Your task to perform on an android device: toggle javascript in the chrome app Image 0: 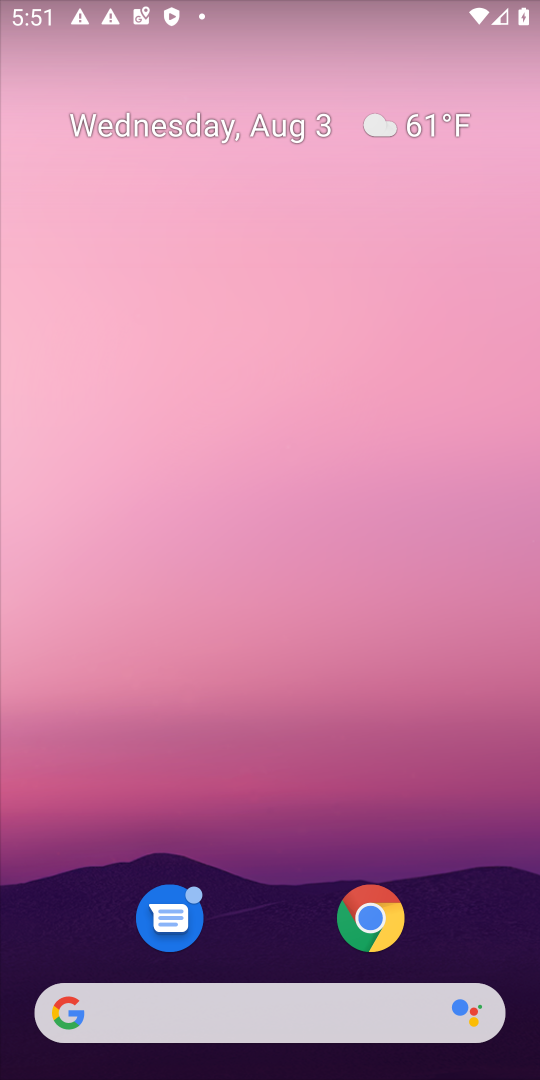
Step 0: click (360, 899)
Your task to perform on an android device: toggle javascript in the chrome app Image 1: 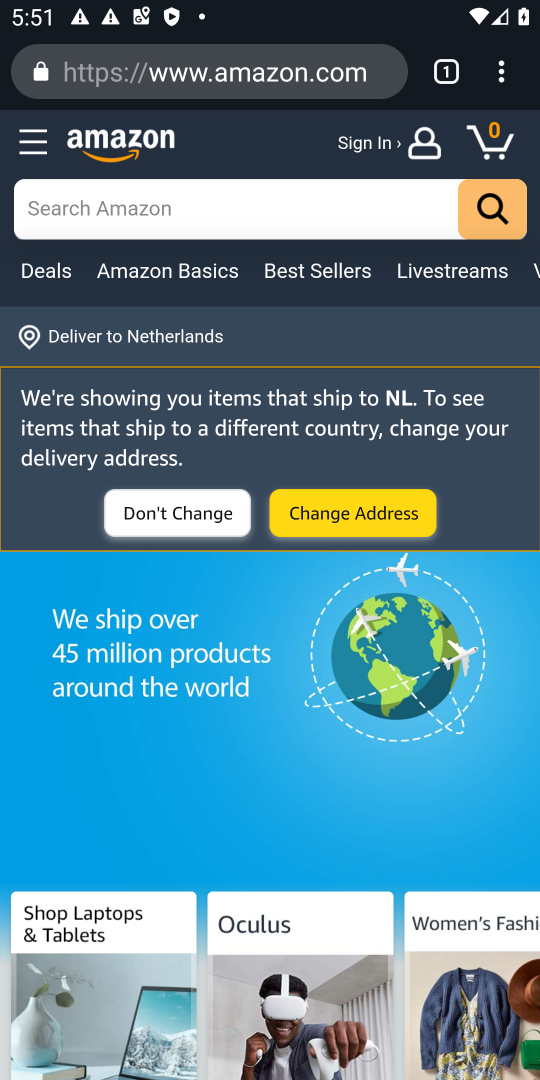
Step 1: click (512, 70)
Your task to perform on an android device: toggle javascript in the chrome app Image 2: 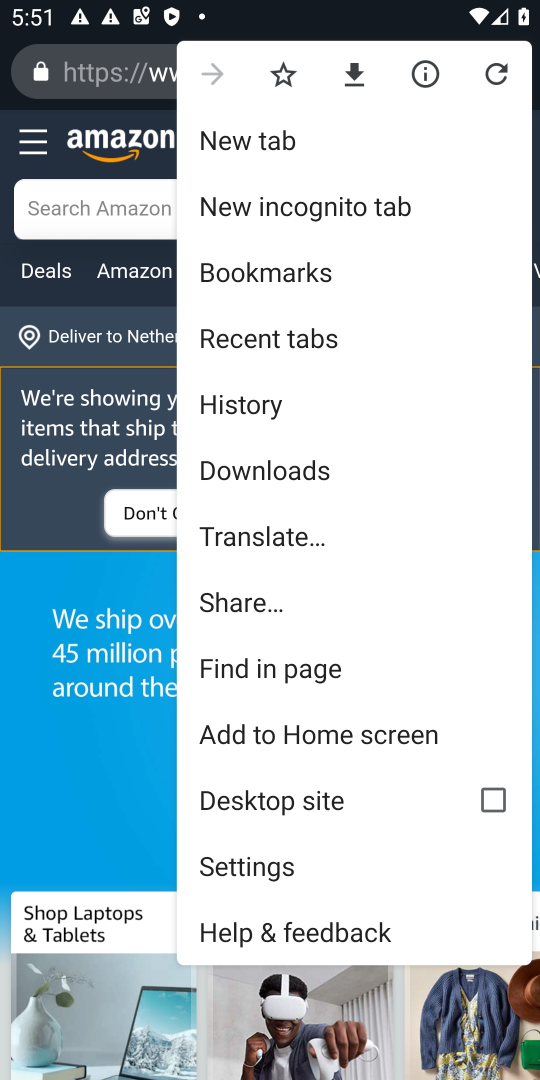
Step 2: click (278, 866)
Your task to perform on an android device: toggle javascript in the chrome app Image 3: 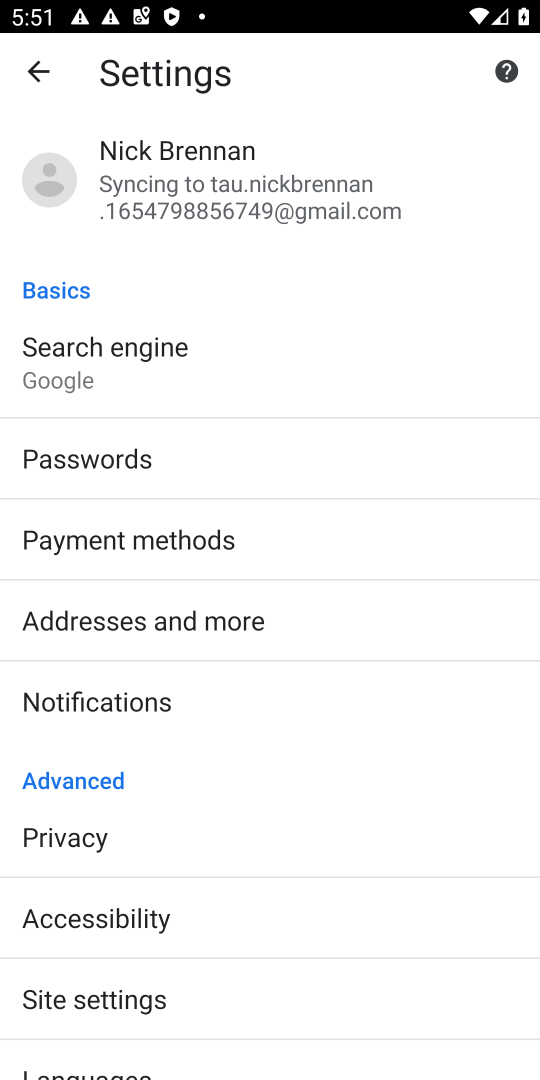
Step 3: click (130, 1008)
Your task to perform on an android device: toggle javascript in the chrome app Image 4: 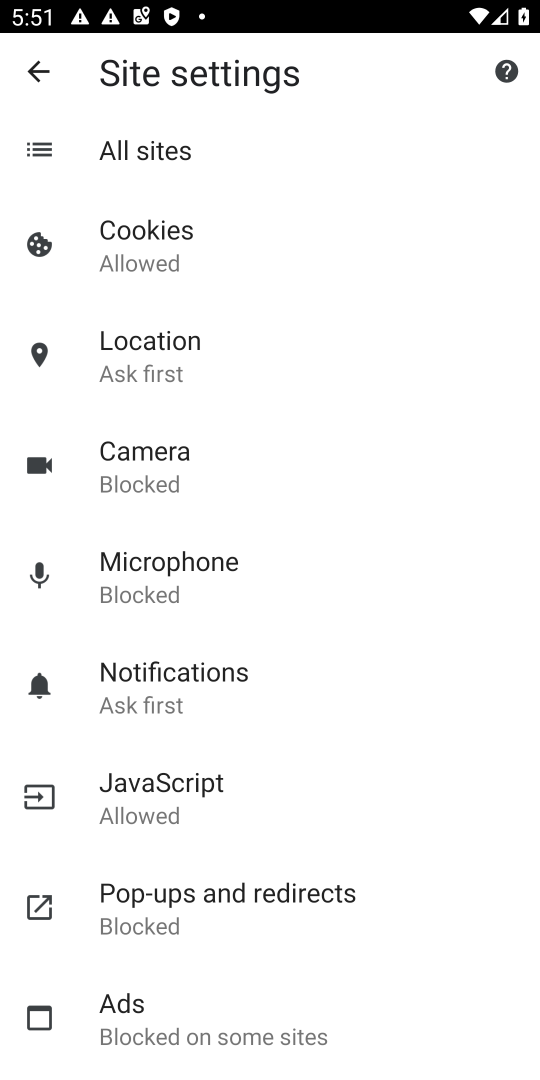
Step 4: click (183, 787)
Your task to perform on an android device: toggle javascript in the chrome app Image 5: 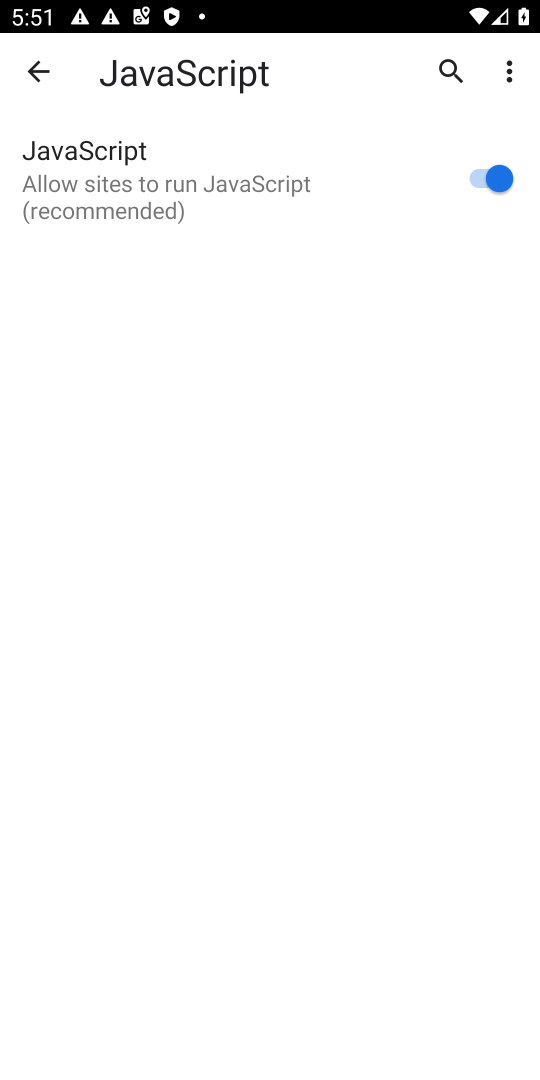
Step 5: click (493, 188)
Your task to perform on an android device: toggle javascript in the chrome app Image 6: 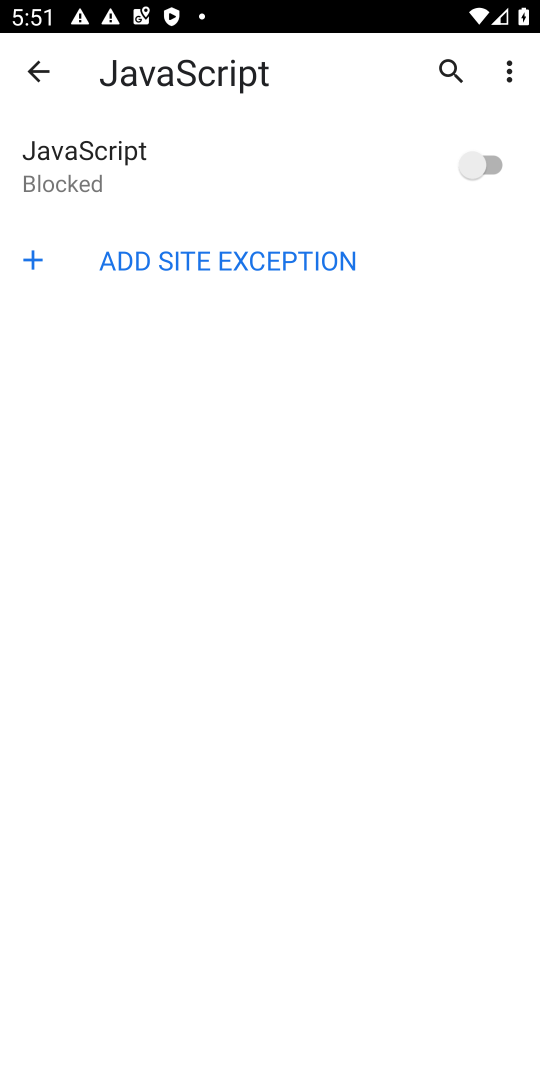
Step 6: task complete